Your task to perform on an android device: Clear the shopping cart on amazon.com. Add macbook pro to the cart on amazon.com Image 0: 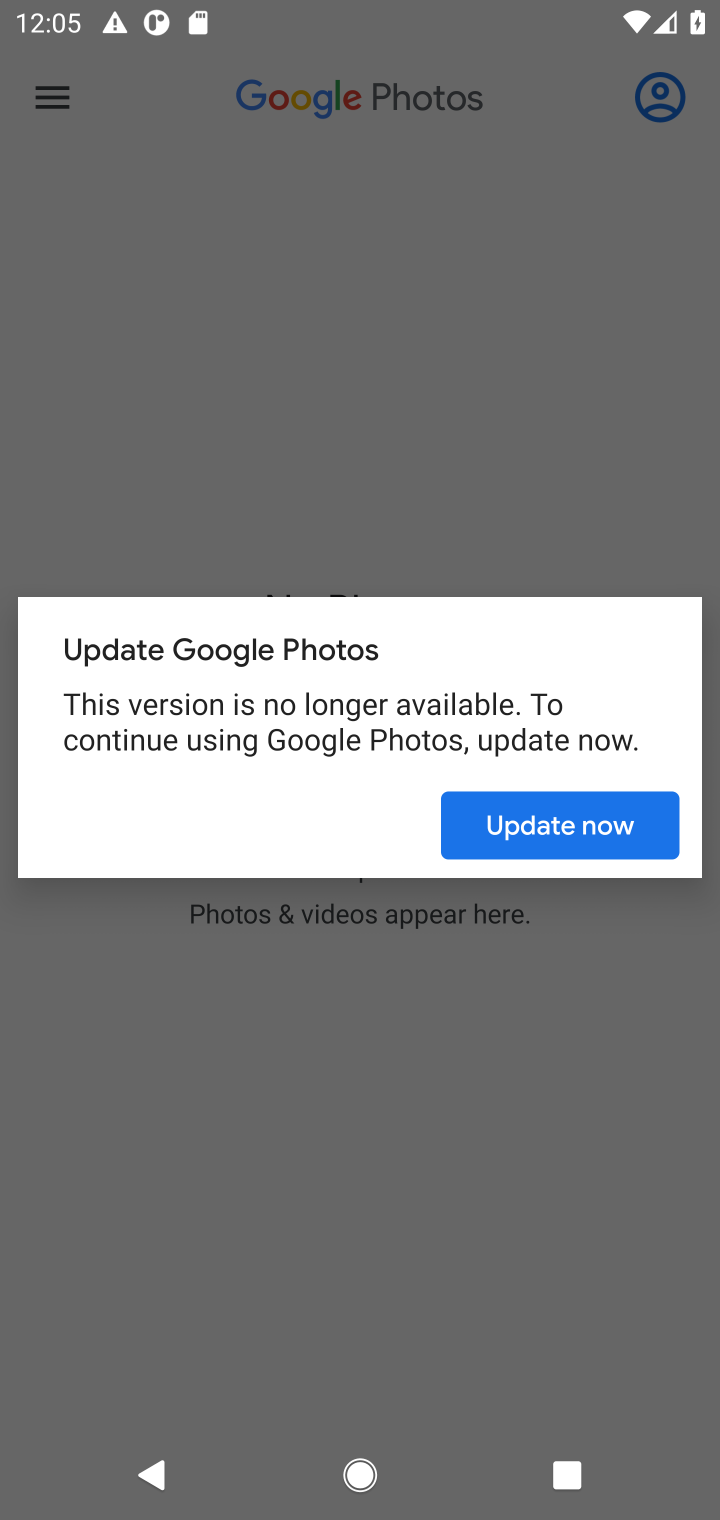
Step 0: press home button
Your task to perform on an android device: Clear the shopping cart on amazon.com. Add macbook pro to the cart on amazon.com Image 1: 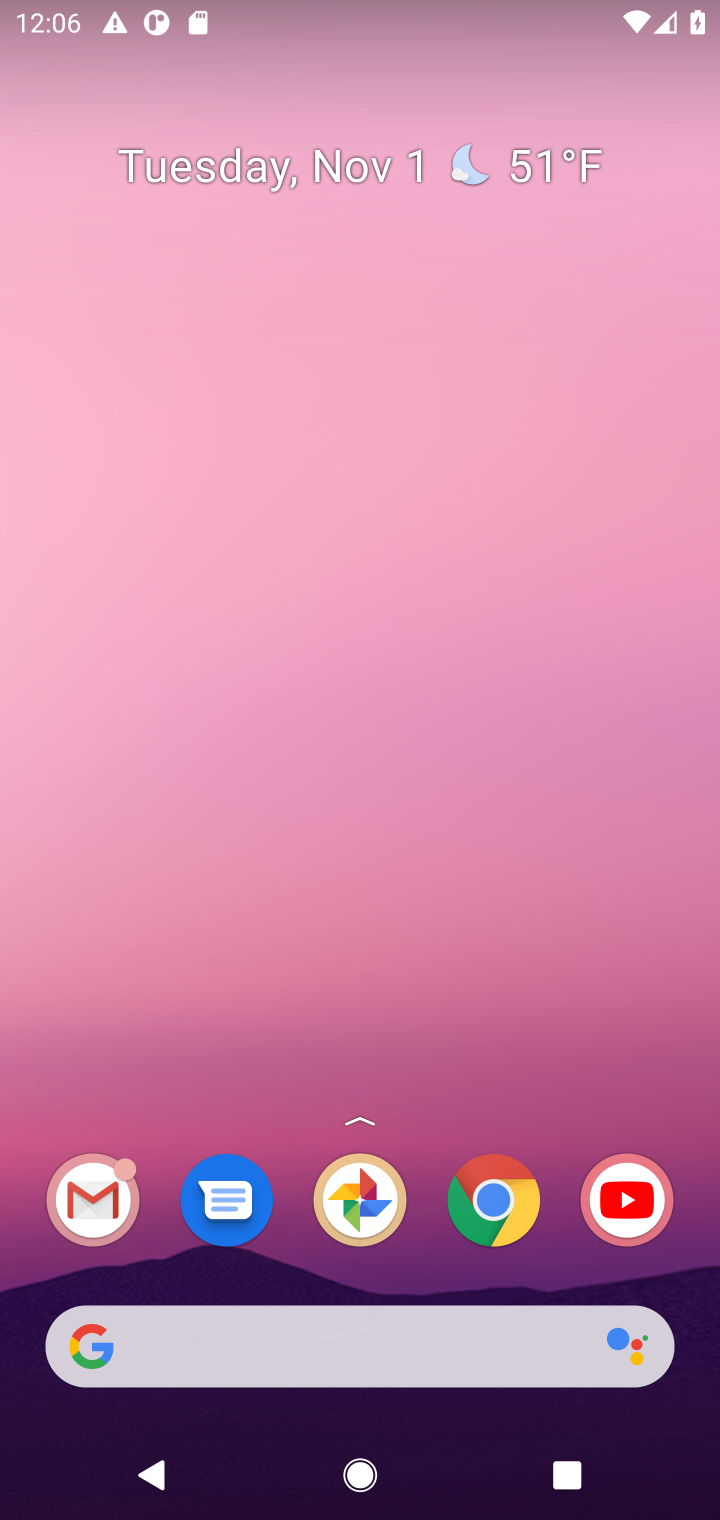
Step 1: click (498, 1220)
Your task to perform on an android device: Clear the shopping cart on amazon.com. Add macbook pro to the cart on amazon.com Image 2: 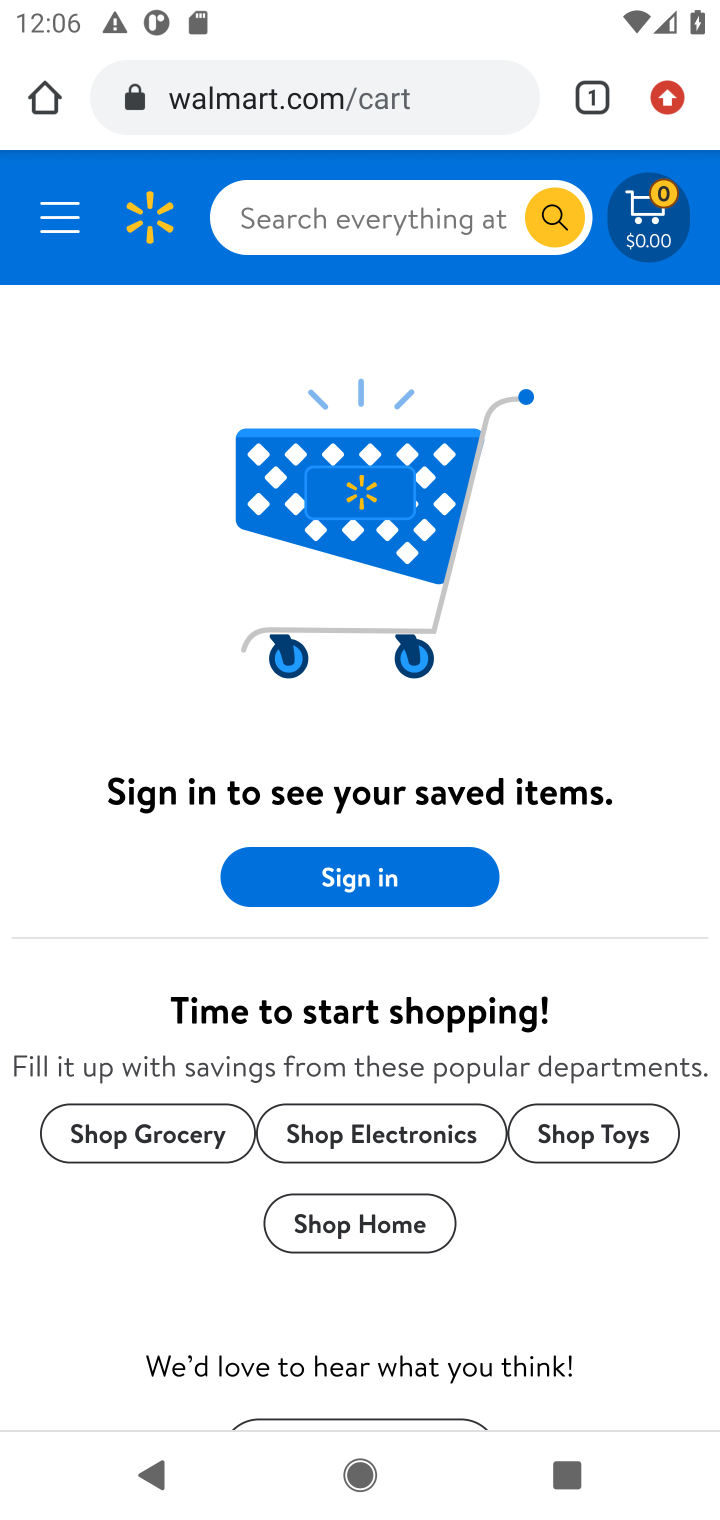
Step 2: click (319, 104)
Your task to perform on an android device: Clear the shopping cart on amazon.com. Add macbook pro to the cart on amazon.com Image 3: 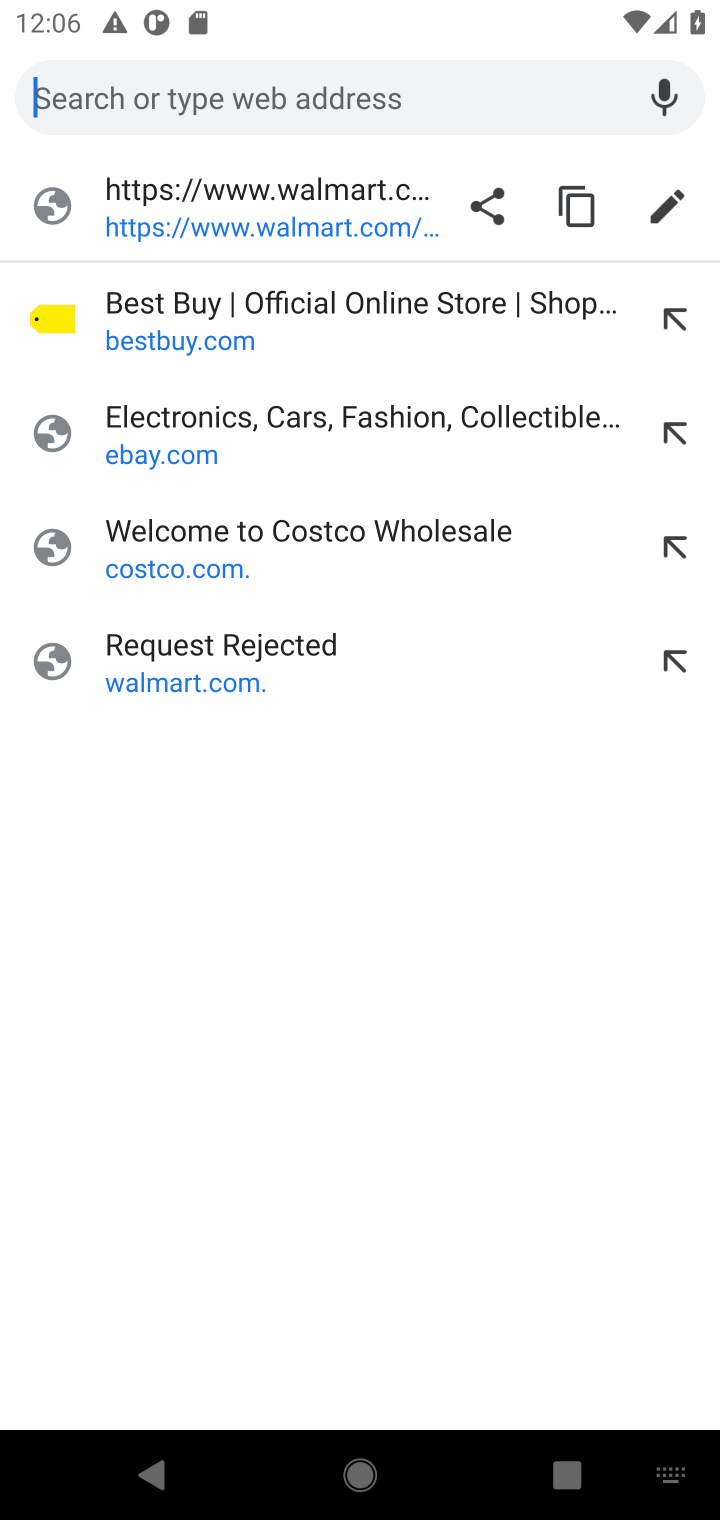
Step 3: type "amazon.com"
Your task to perform on an android device: Clear the shopping cart on amazon.com. Add macbook pro to the cart on amazon.com Image 4: 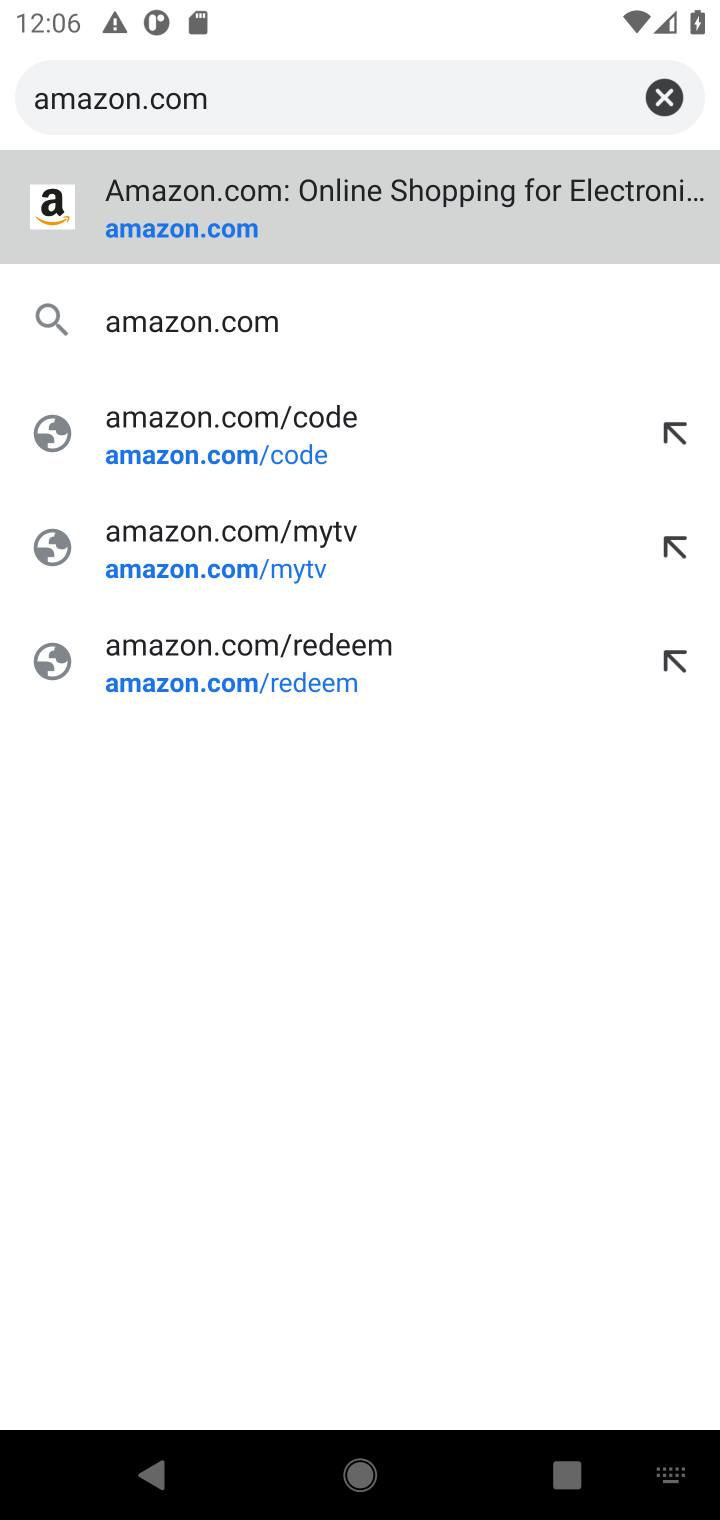
Step 4: click (181, 221)
Your task to perform on an android device: Clear the shopping cart on amazon.com. Add macbook pro to the cart on amazon.com Image 5: 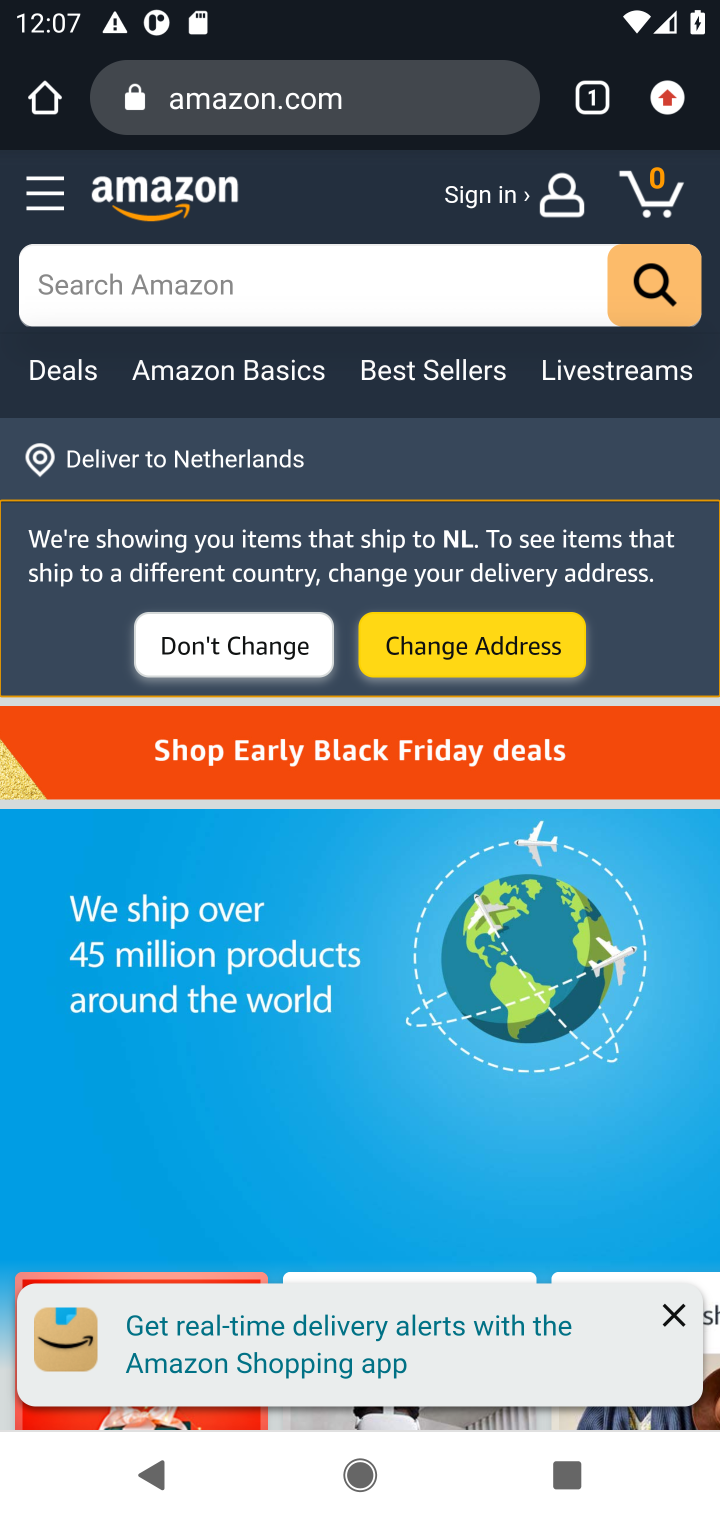
Step 5: click (307, 280)
Your task to perform on an android device: Clear the shopping cart on amazon.com. Add macbook pro to the cart on amazon.com Image 6: 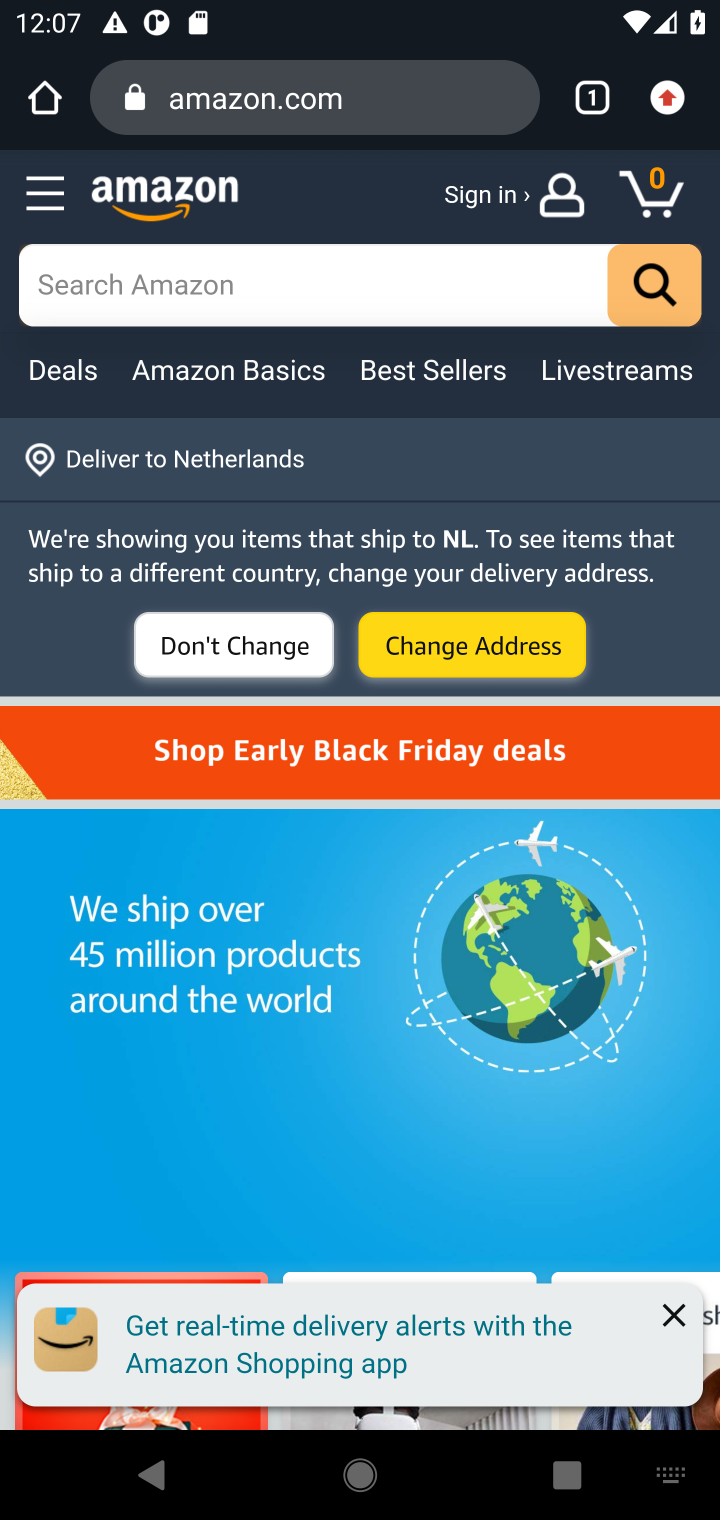
Step 6: type "macbook pro"
Your task to perform on an android device: Clear the shopping cart on amazon.com. Add macbook pro to the cart on amazon.com Image 7: 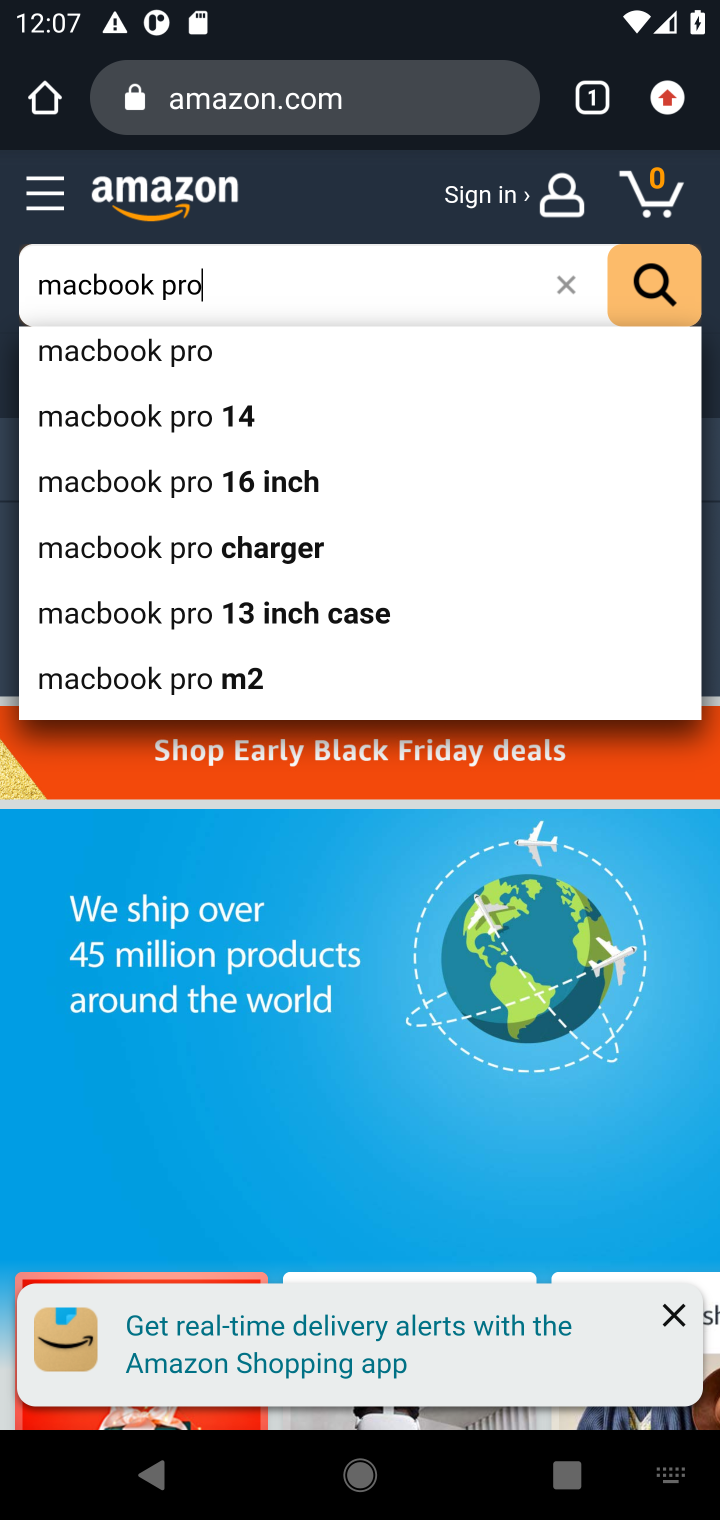
Step 7: click (129, 362)
Your task to perform on an android device: Clear the shopping cart on amazon.com. Add macbook pro to the cart on amazon.com Image 8: 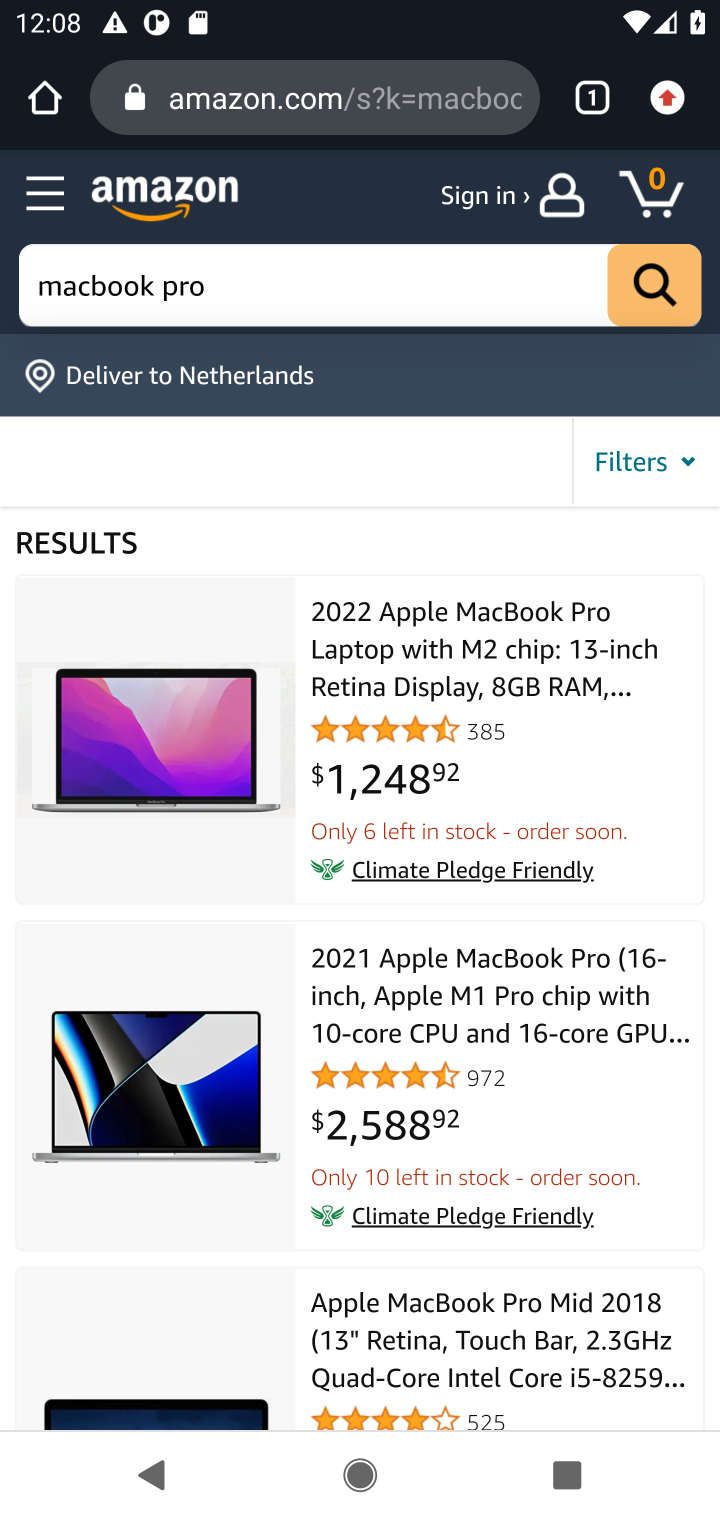
Step 8: click (412, 769)
Your task to perform on an android device: Clear the shopping cart on amazon.com. Add macbook pro to the cart on amazon.com Image 9: 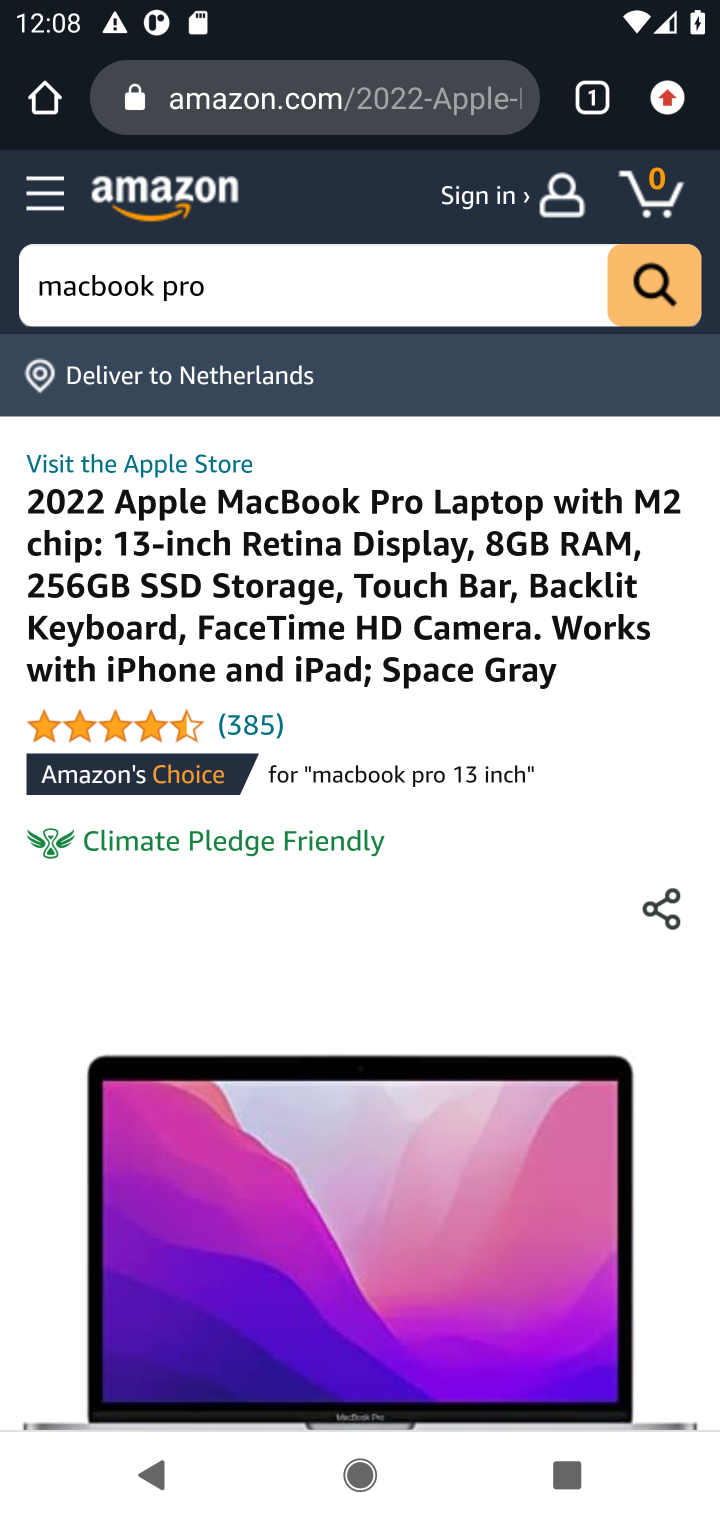
Step 9: drag from (370, 1139) to (427, 638)
Your task to perform on an android device: Clear the shopping cart on amazon.com. Add macbook pro to the cart on amazon.com Image 10: 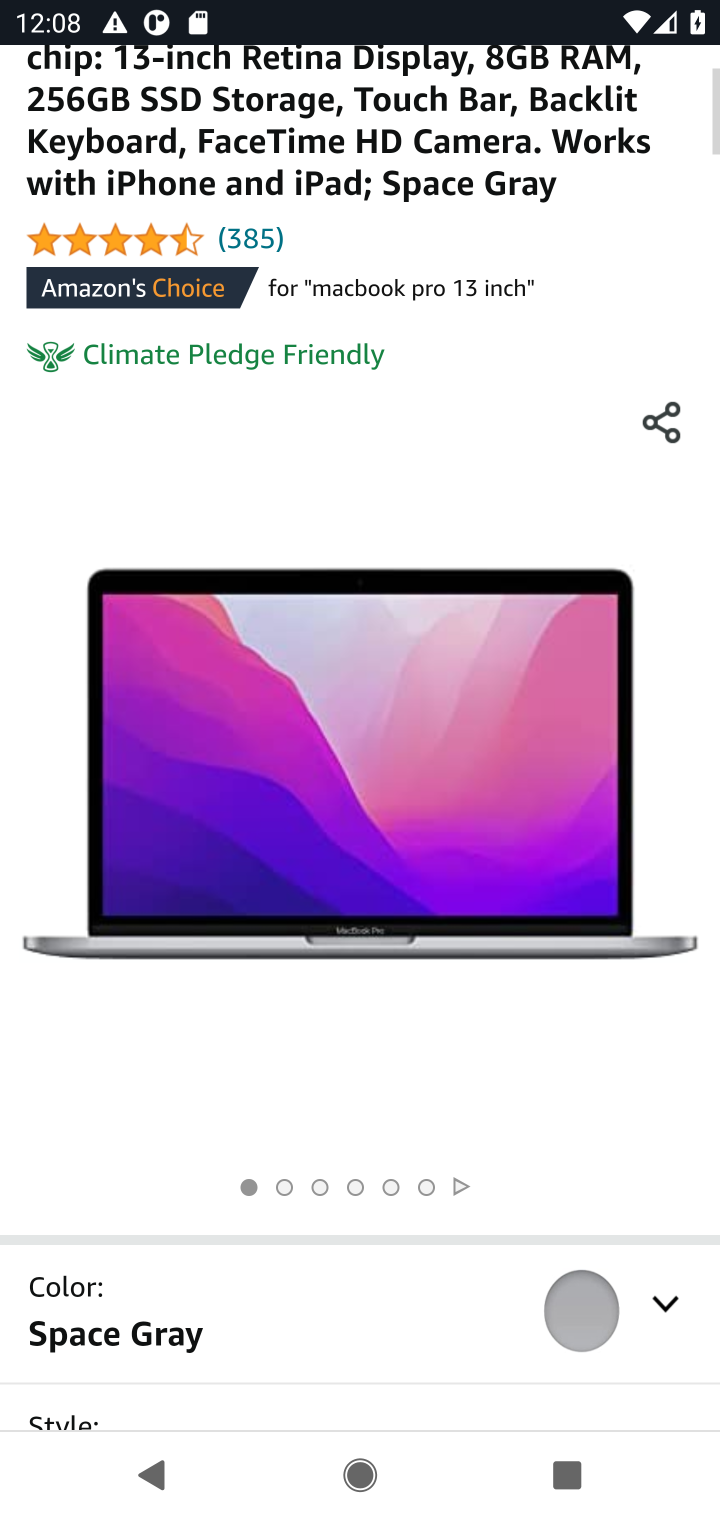
Step 10: drag from (390, 978) to (420, 488)
Your task to perform on an android device: Clear the shopping cart on amazon.com. Add macbook pro to the cart on amazon.com Image 11: 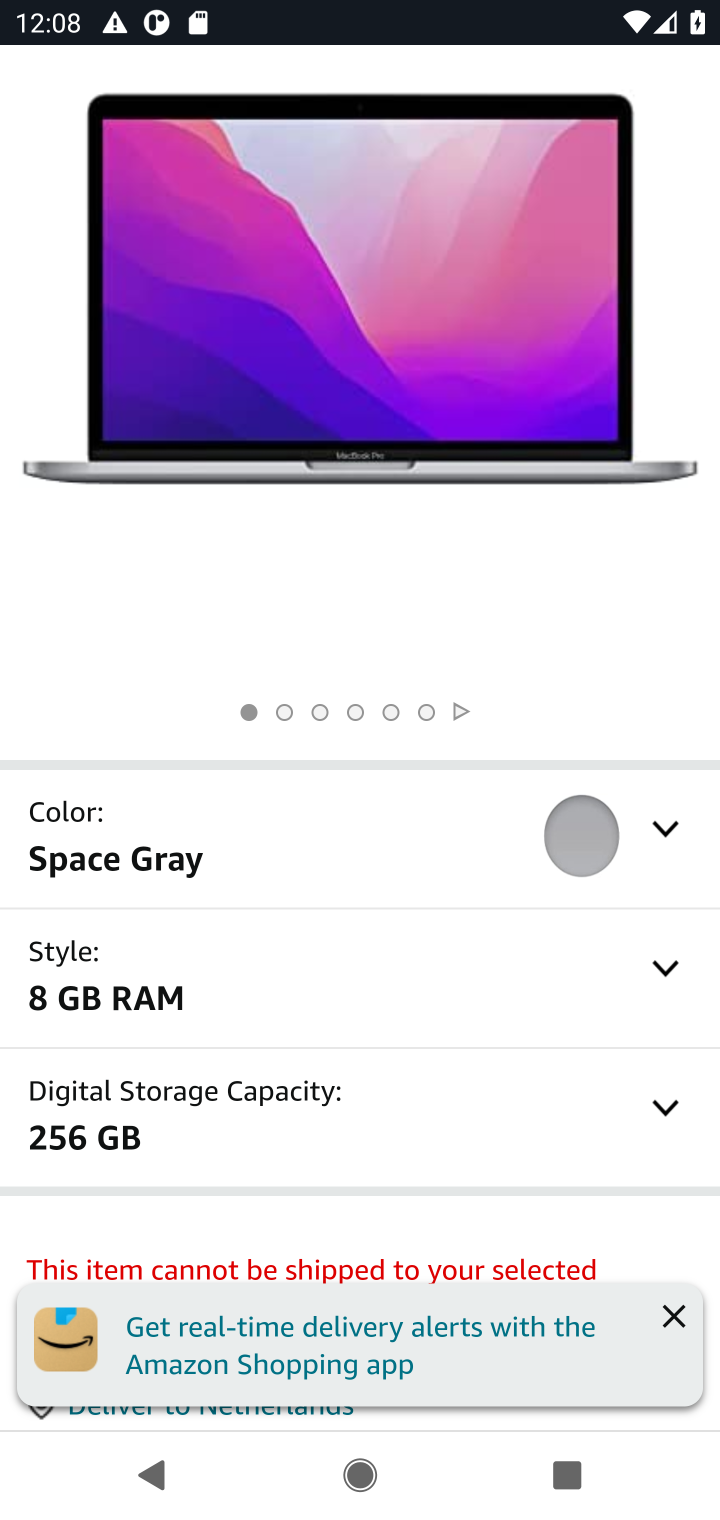
Step 11: drag from (471, 1148) to (449, 534)
Your task to perform on an android device: Clear the shopping cart on amazon.com. Add macbook pro to the cart on amazon.com Image 12: 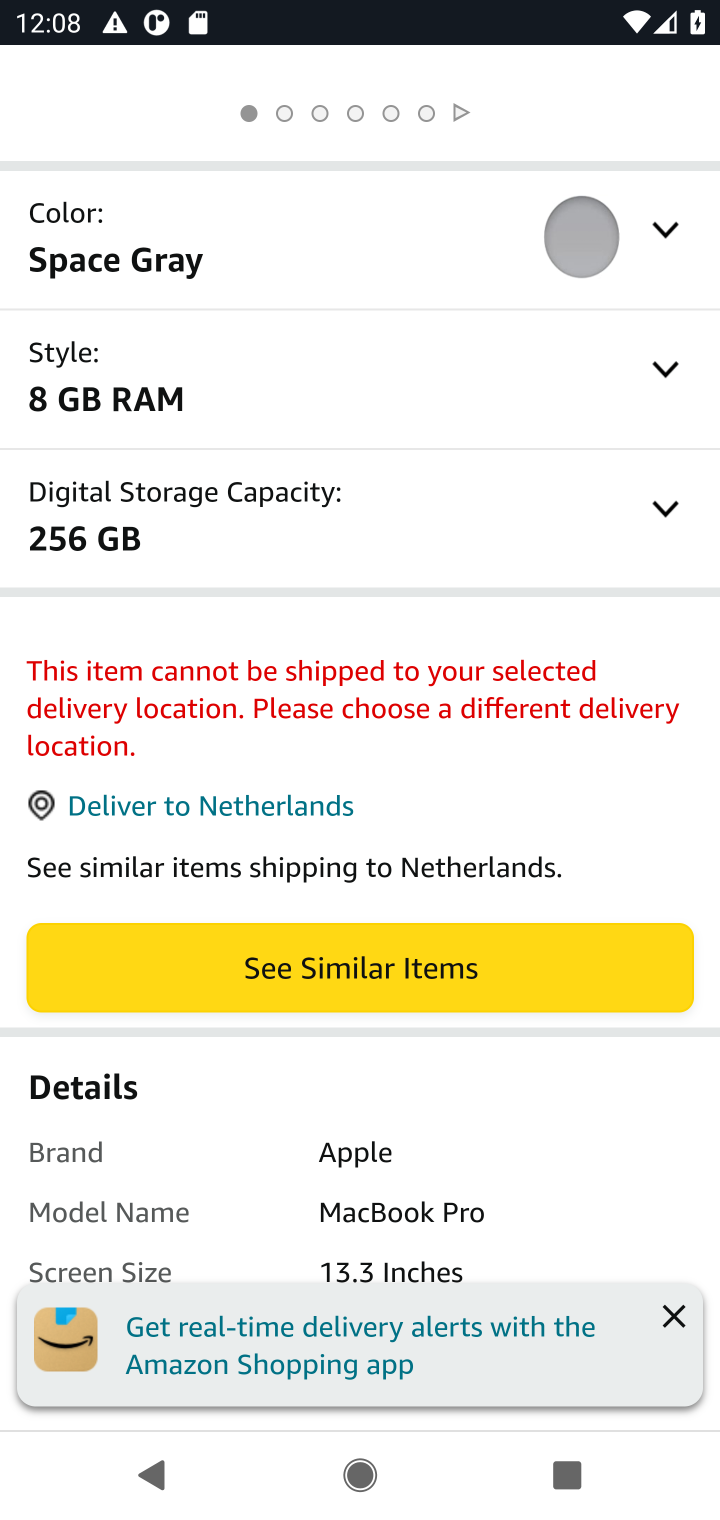
Step 12: drag from (332, 1029) to (376, 487)
Your task to perform on an android device: Clear the shopping cart on amazon.com. Add macbook pro to the cart on amazon.com Image 13: 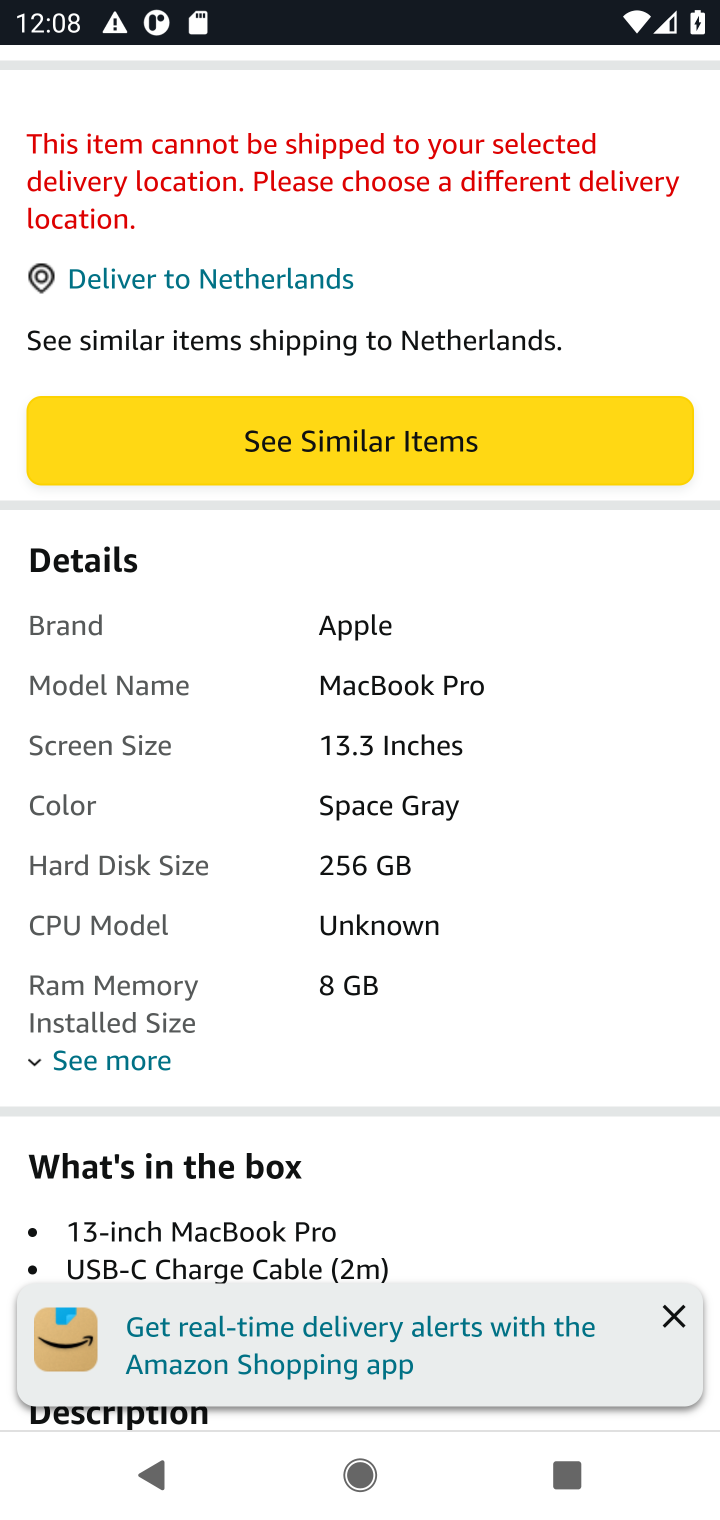
Step 13: drag from (381, 491) to (319, 1326)
Your task to perform on an android device: Clear the shopping cart on amazon.com. Add macbook pro to the cart on amazon.com Image 14: 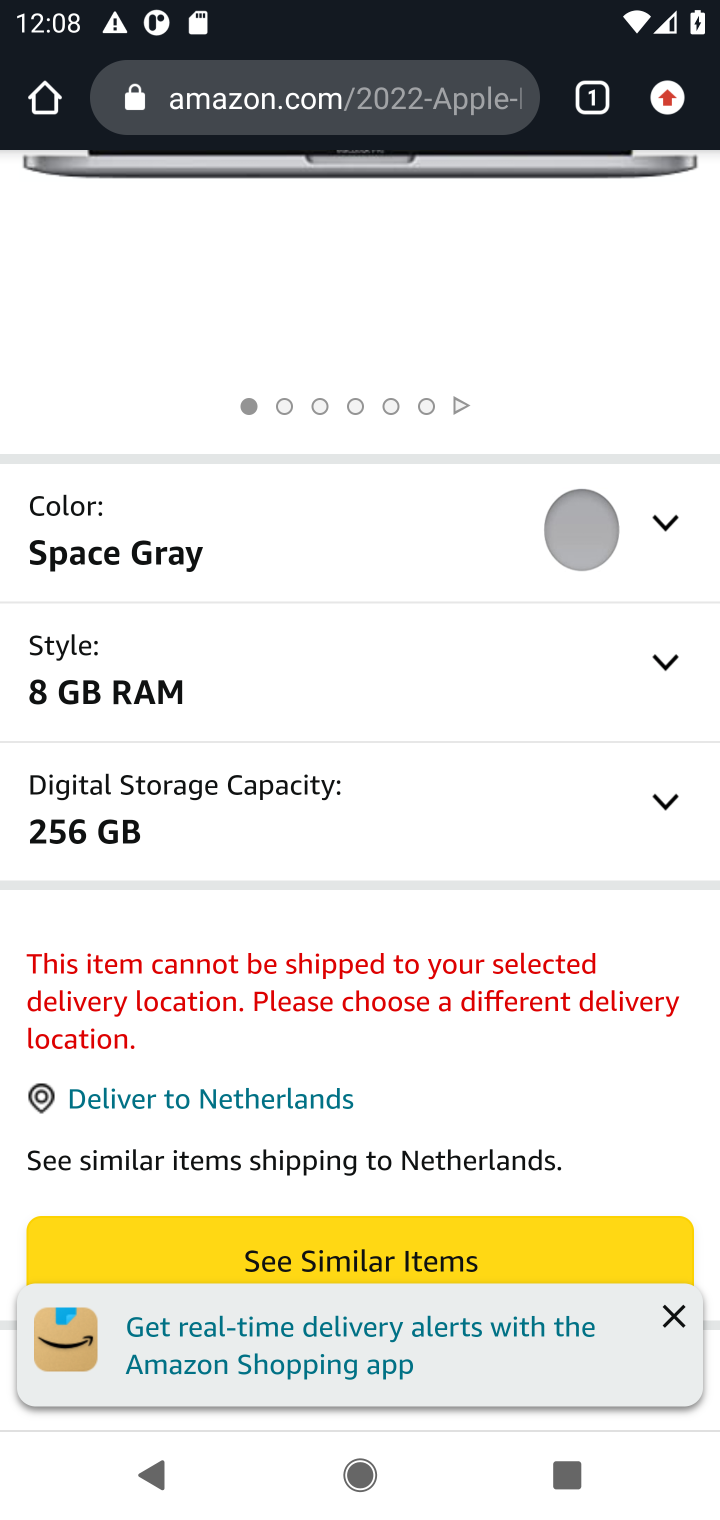
Step 14: drag from (272, 607) to (264, 1087)
Your task to perform on an android device: Clear the shopping cart on amazon.com. Add macbook pro to the cart on amazon.com Image 15: 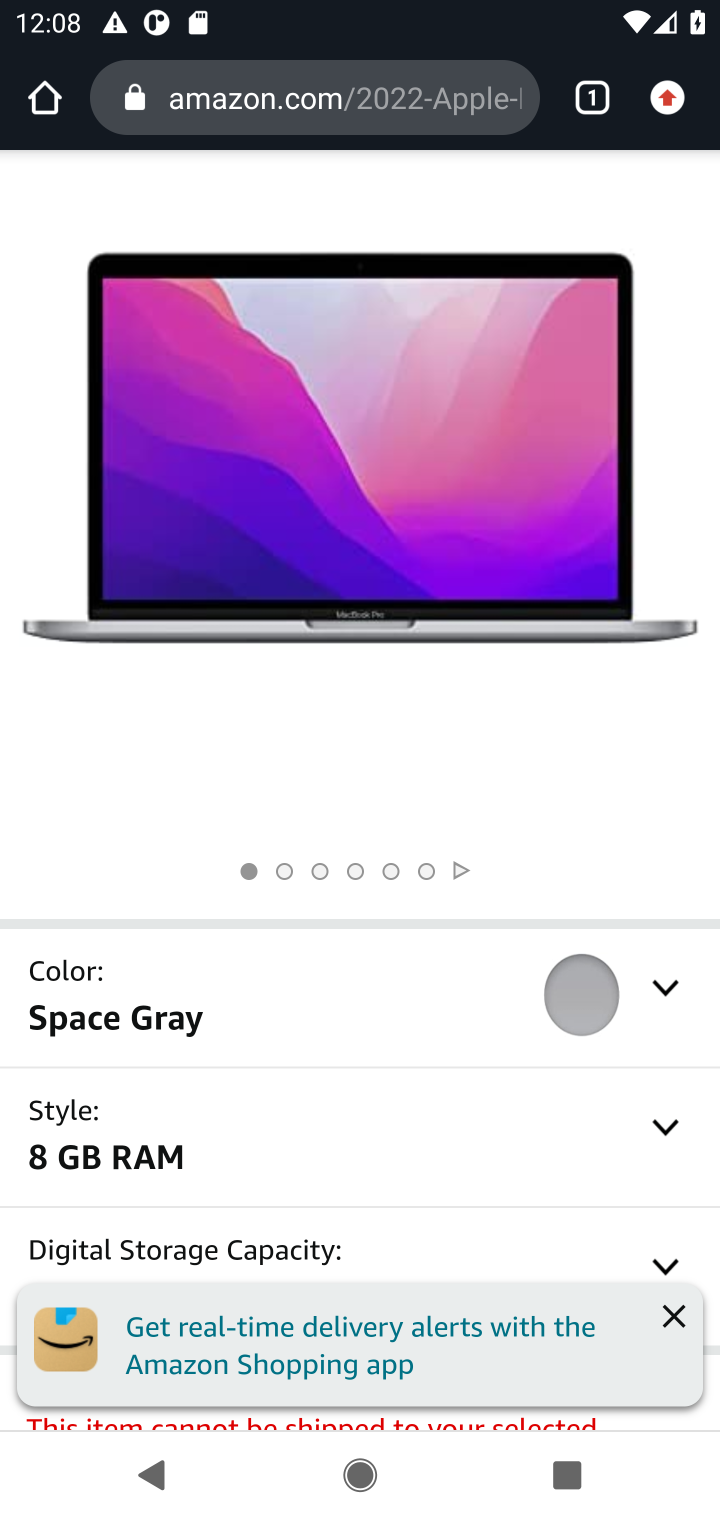
Step 15: drag from (302, 926) to (283, 1213)
Your task to perform on an android device: Clear the shopping cart on amazon.com. Add macbook pro to the cart on amazon.com Image 16: 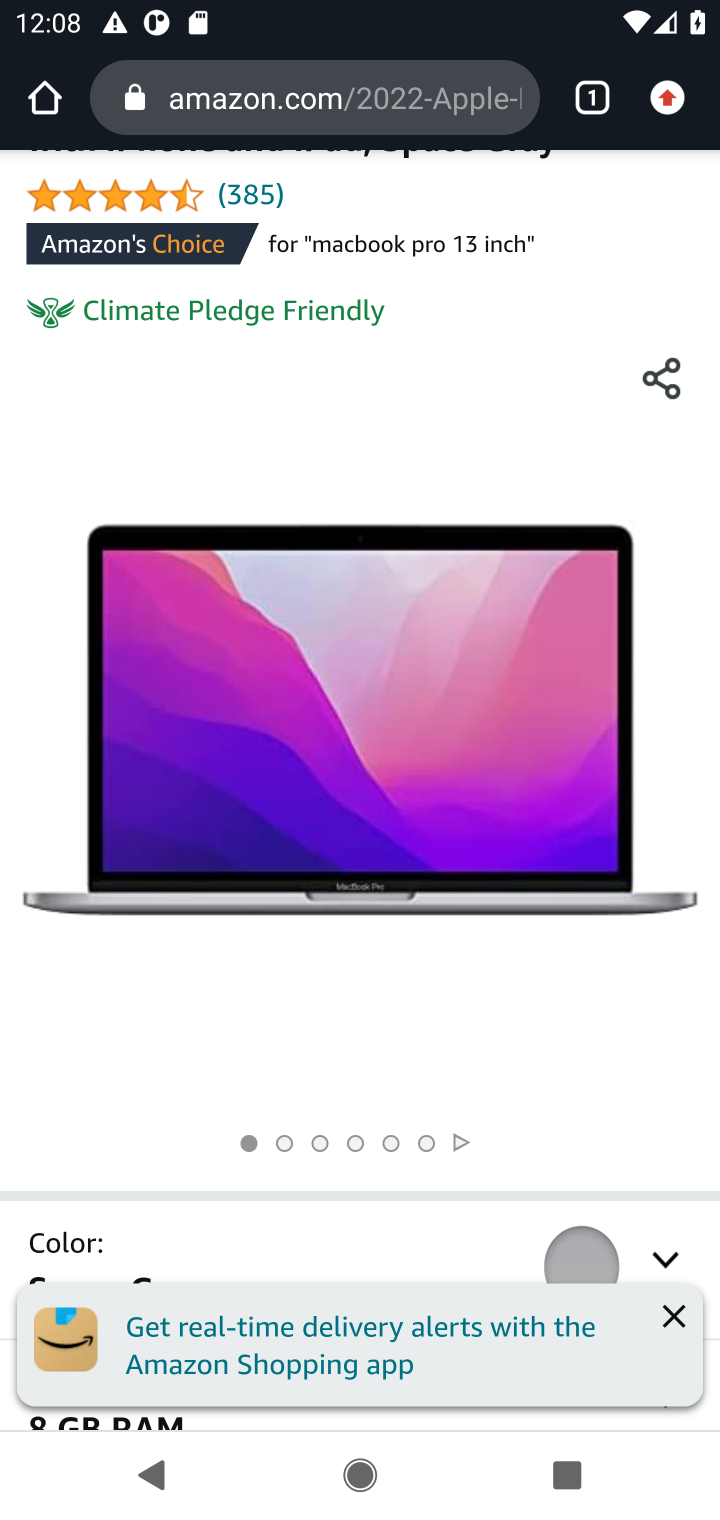
Step 16: press back button
Your task to perform on an android device: Clear the shopping cart on amazon.com. Add macbook pro to the cart on amazon.com Image 17: 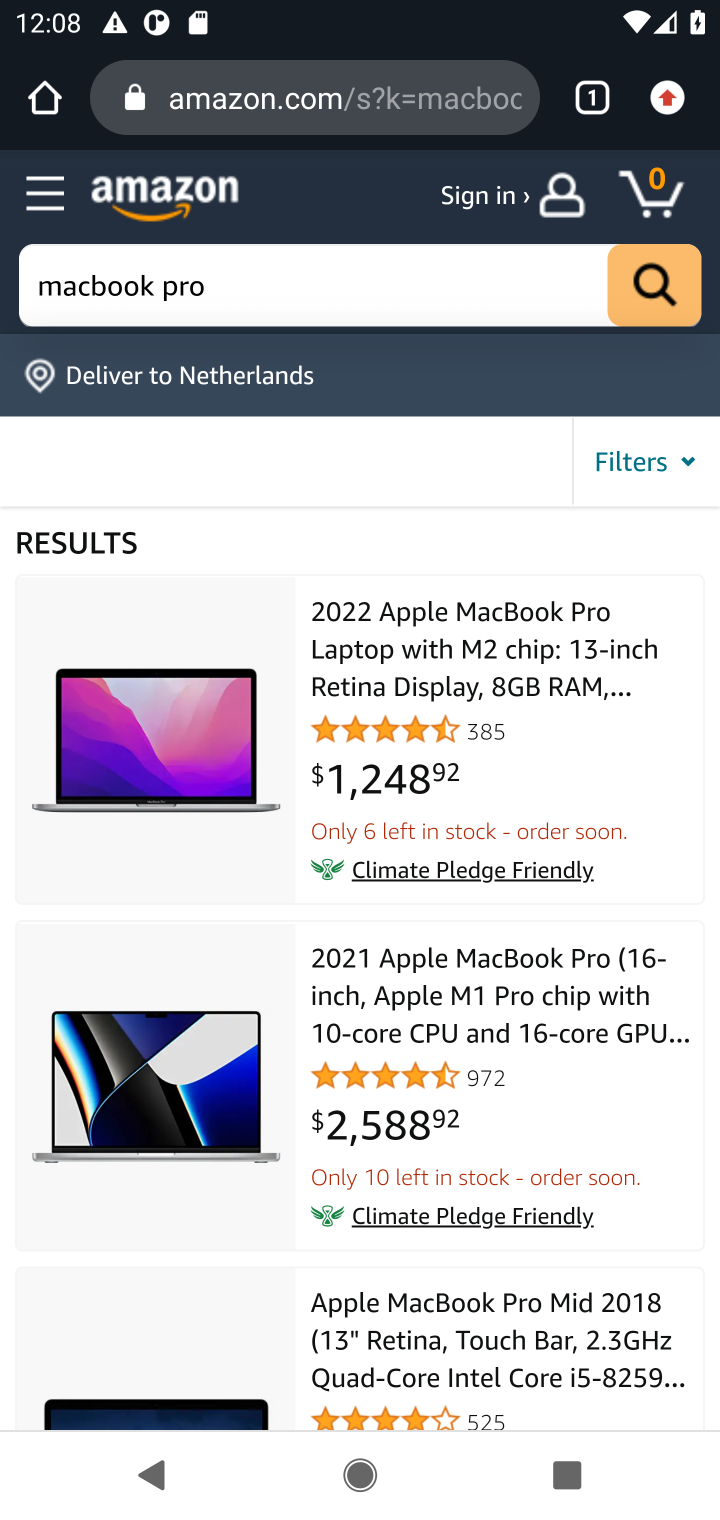
Step 17: click (429, 1055)
Your task to perform on an android device: Clear the shopping cart on amazon.com. Add macbook pro to the cart on amazon.com Image 18: 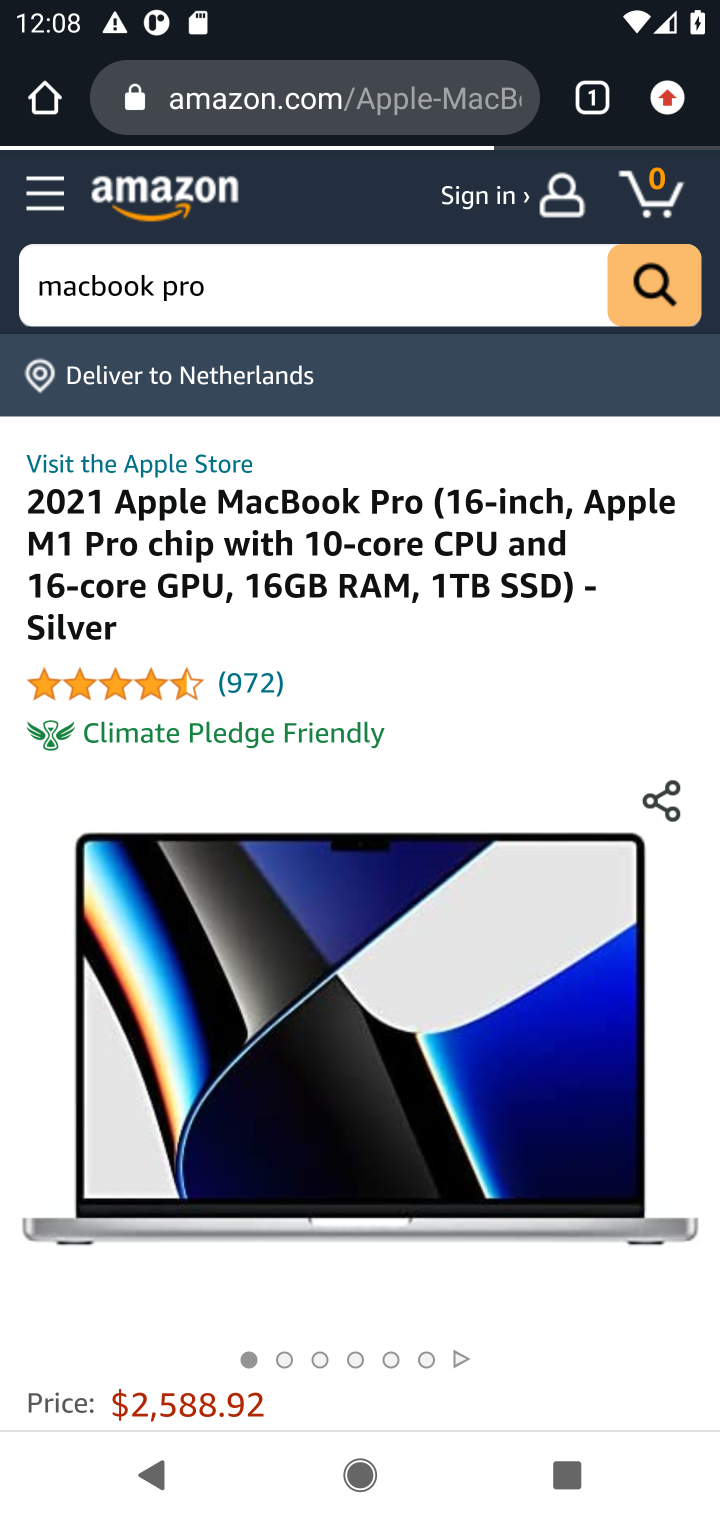
Step 18: drag from (289, 1071) to (279, 357)
Your task to perform on an android device: Clear the shopping cart on amazon.com. Add macbook pro to the cart on amazon.com Image 19: 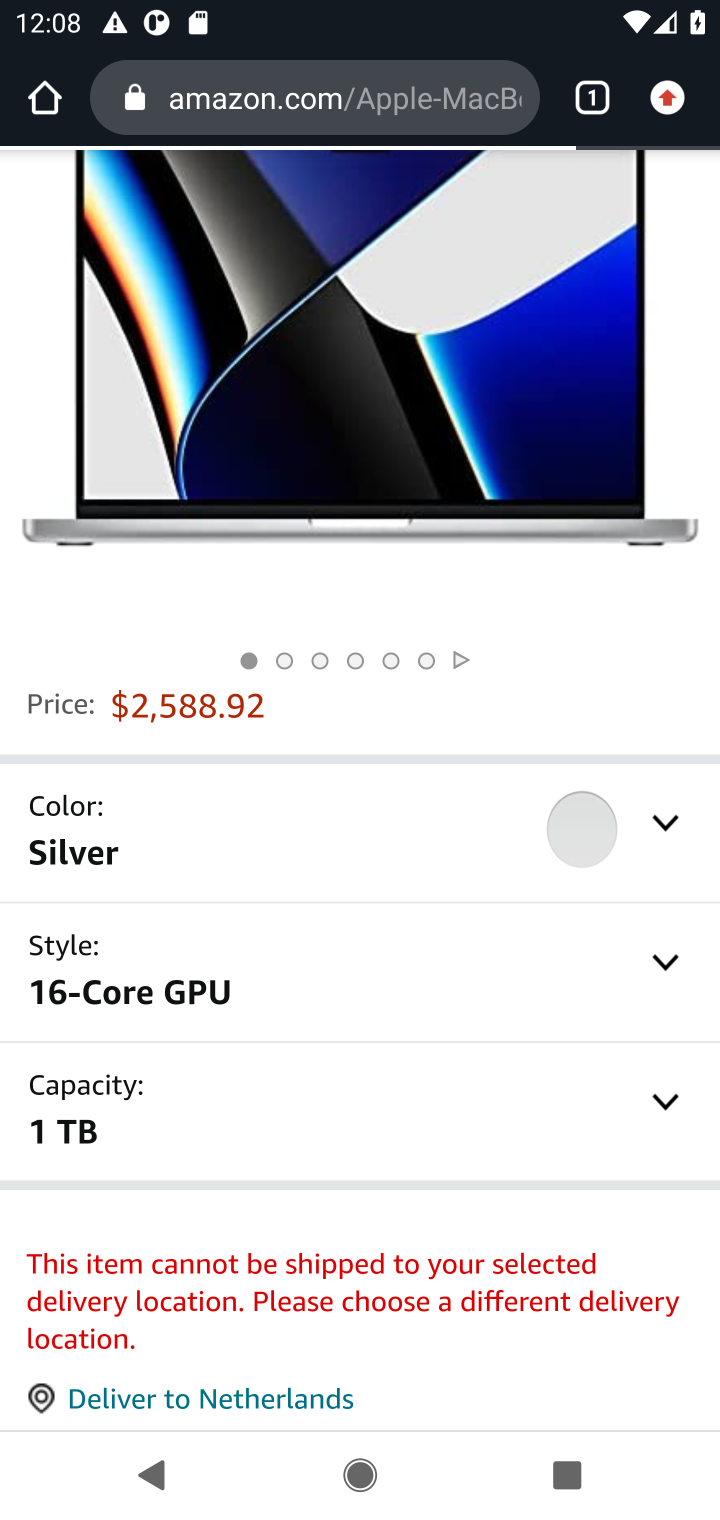
Step 19: drag from (269, 796) to (283, 545)
Your task to perform on an android device: Clear the shopping cart on amazon.com. Add macbook pro to the cart on amazon.com Image 20: 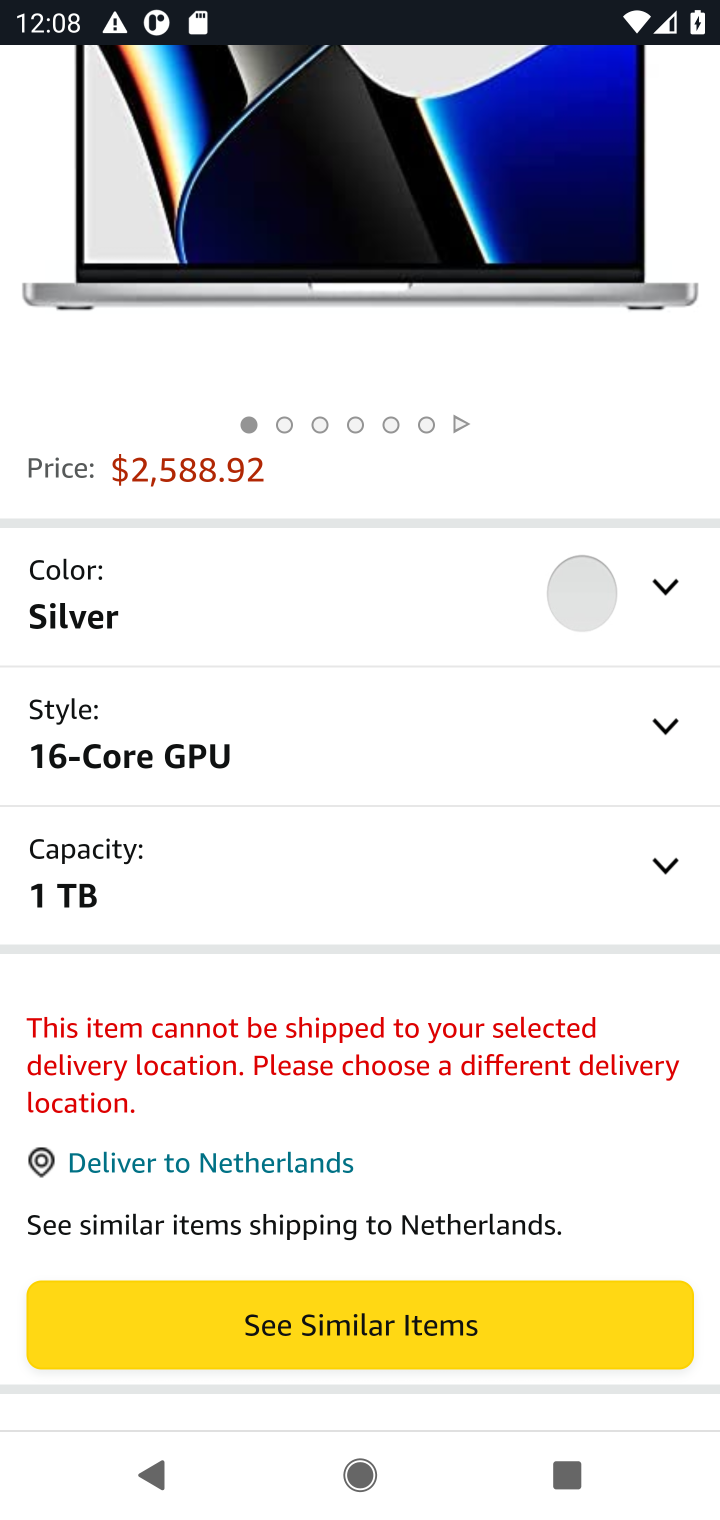
Step 20: press back button
Your task to perform on an android device: Clear the shopping cart on amazon.com. Add macbook pro to the cart on amazon.com Image 21: 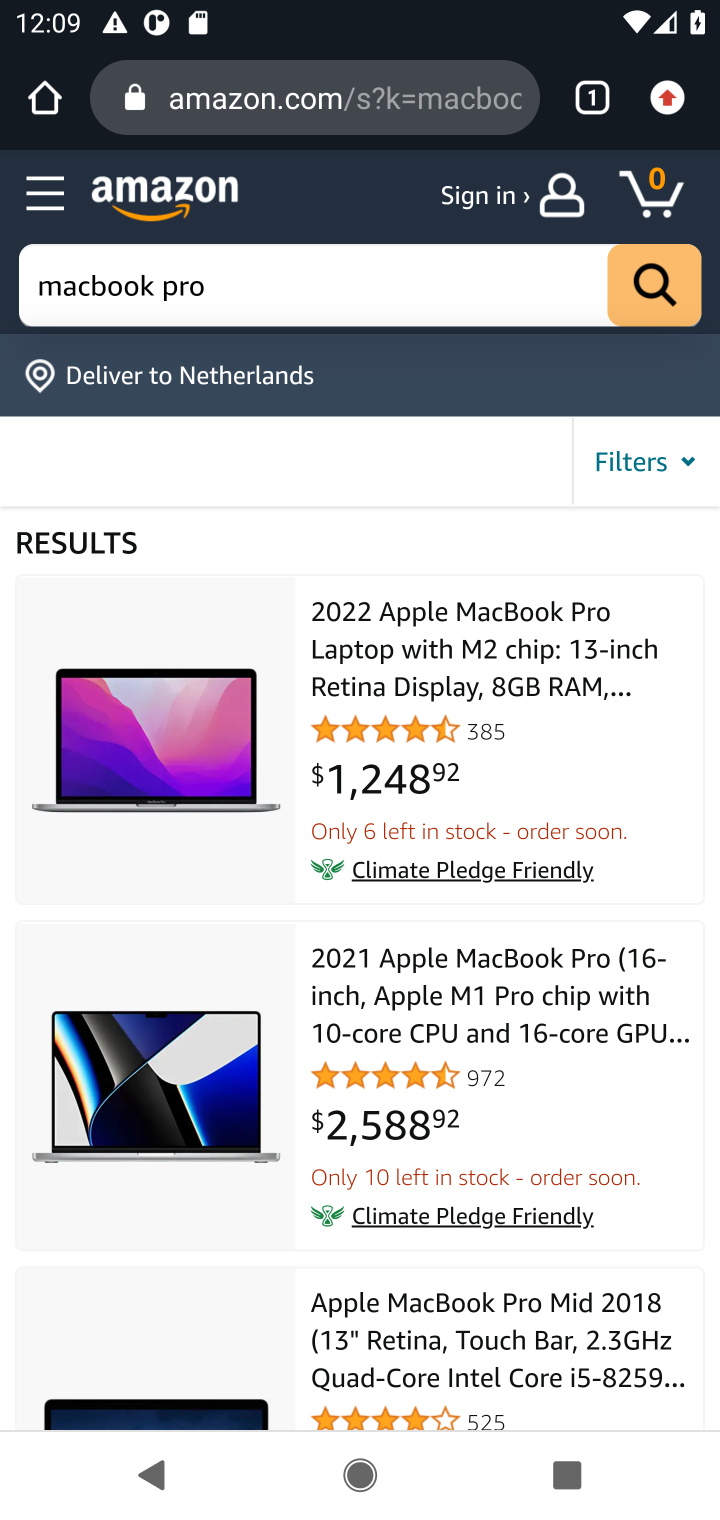
Step 21: drag from (379, 1267) to (427, 579)
Your task to perform on an android device: Clear the shopping cart on amazon.com. Add macbook pro to the cart on amazon.com Image 22: 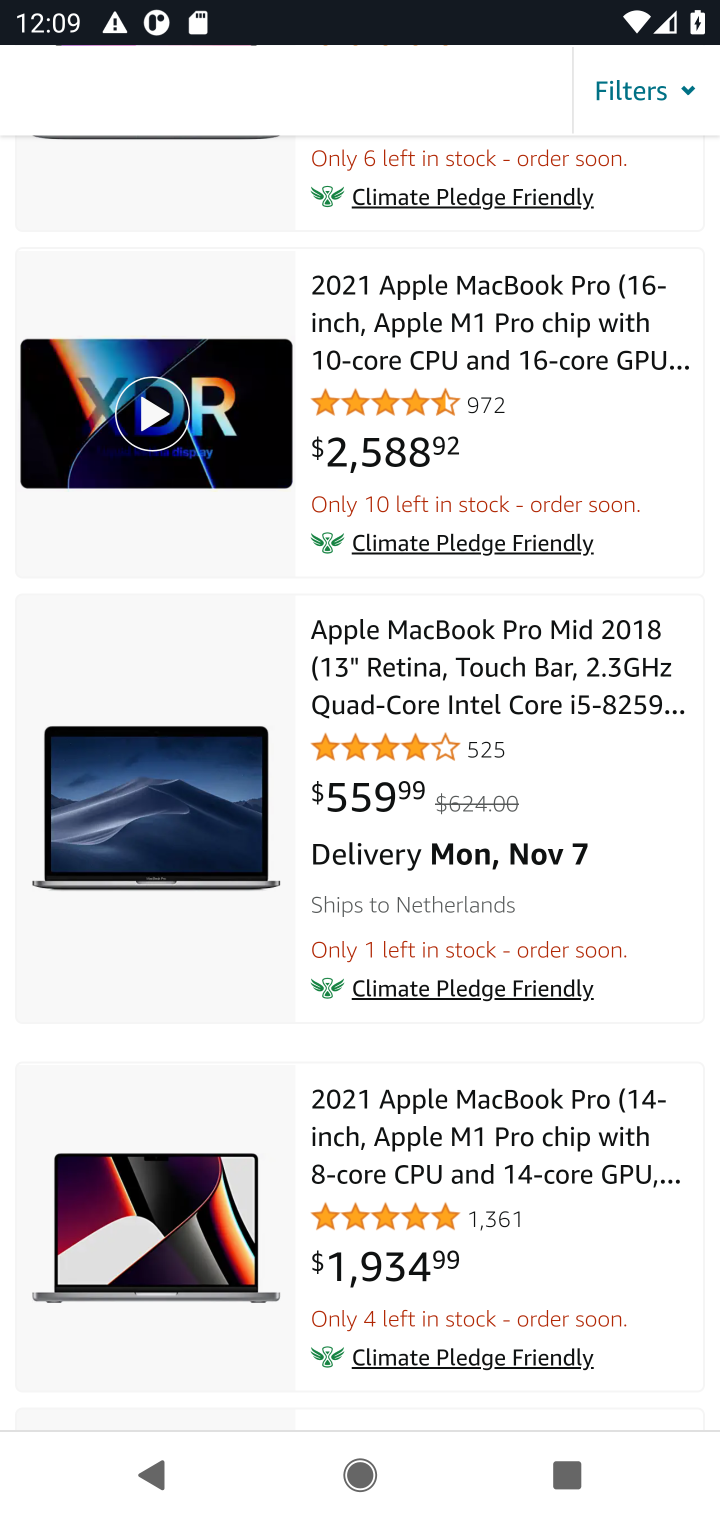
Step 22: click (227, 841)
Your task to perform on an android device: Clear the shopping cart on amazon.com. Add macbook pro to the cart on amazon.com Image 23: 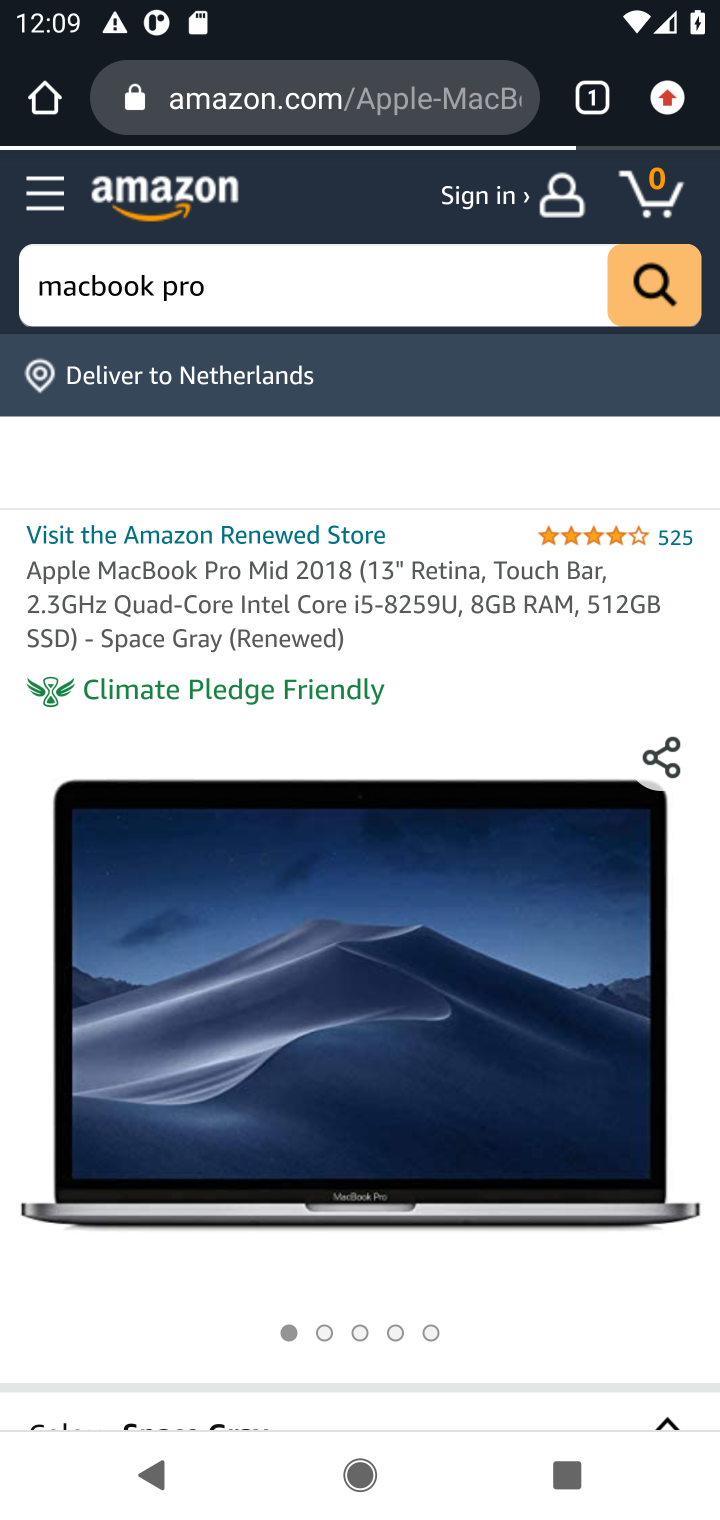
Step 23: drag from (276, 990) to (299, 421)
Your task to perform on an android device: Clear the shopping cart on amazon.com. Add macbook pro to the cart on amazon.com Image 24: 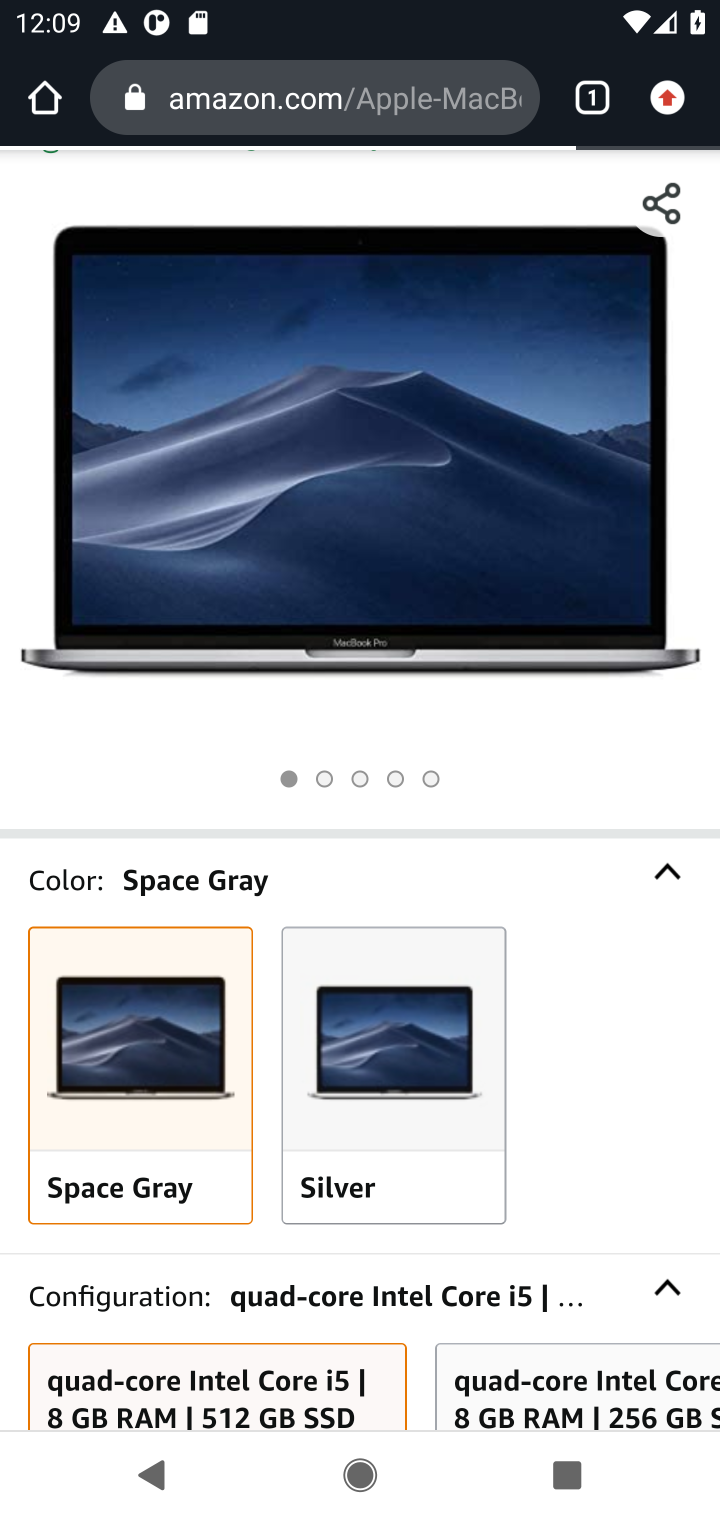
Step 24: drag from (402, 1184) to (407, 450)
Your task to perform on an android device: Clear the shopping cart on amazon.com. Add macbook pro to the cart on amazon.com Image 25: 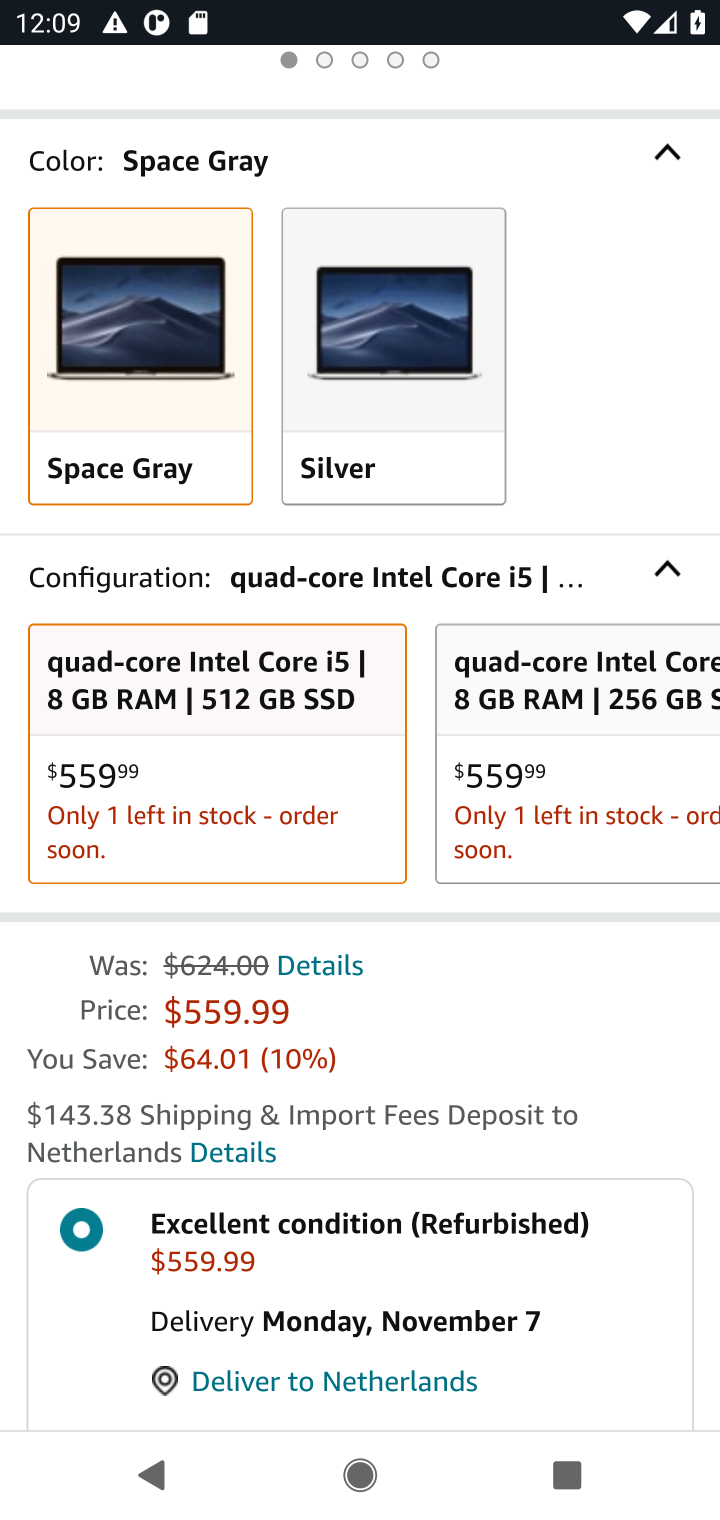
Step 25: drag from (433, 904) to (437, 385)
Your task to perform on an android device: Clear the shopping cart on amazon.com. Add macbook pro to the cart on amazon.com Image 26: 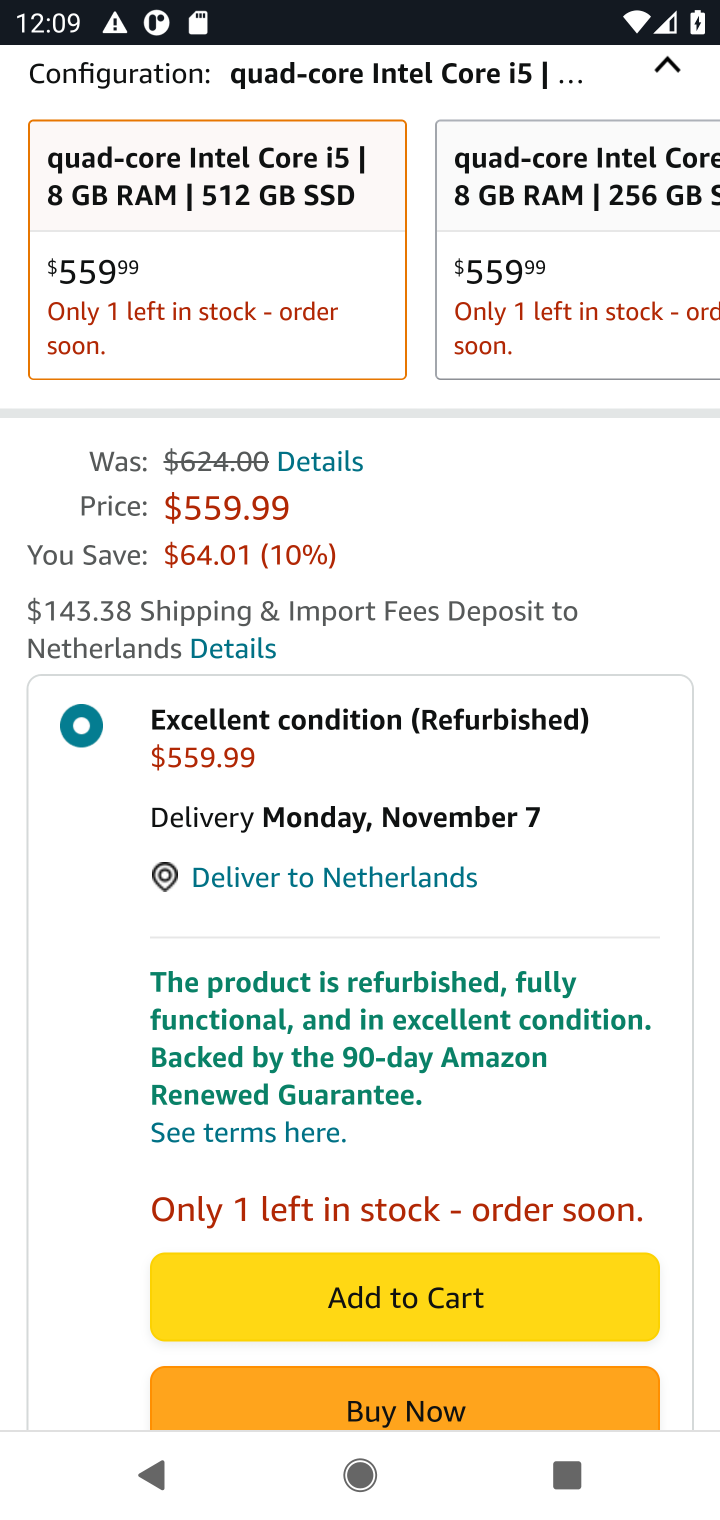
Step 26: drag from (363, 1103) to (410, 733)
Your task to perform on an android device: Clear the shopping cart on amazon.com. Add macbook pro to the cart on amazon.com Image 27: 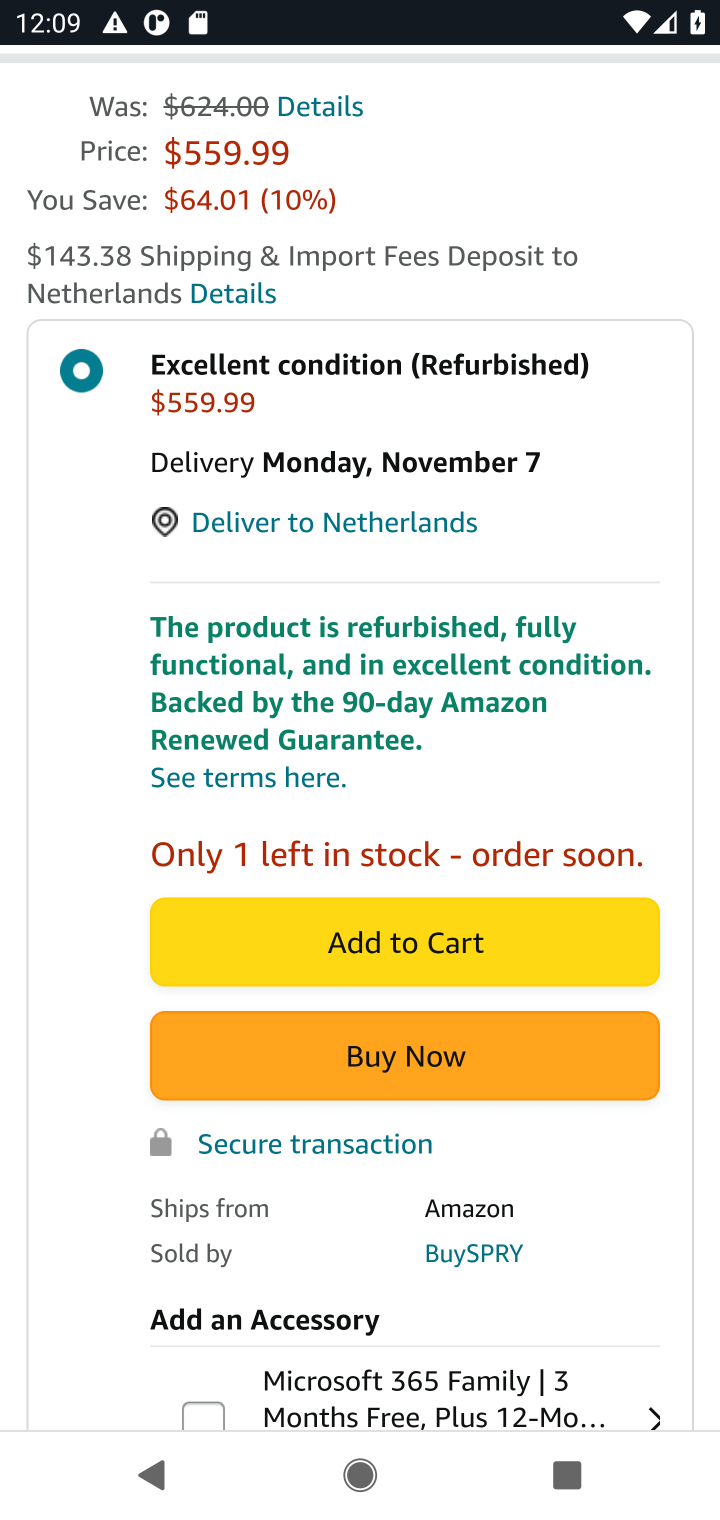
Step 27: click (390, 939)
Your task to perform on an android device: Clear the shopping cart on amazon.com. Add macbook pro to the cart on amazon.com Image 28: 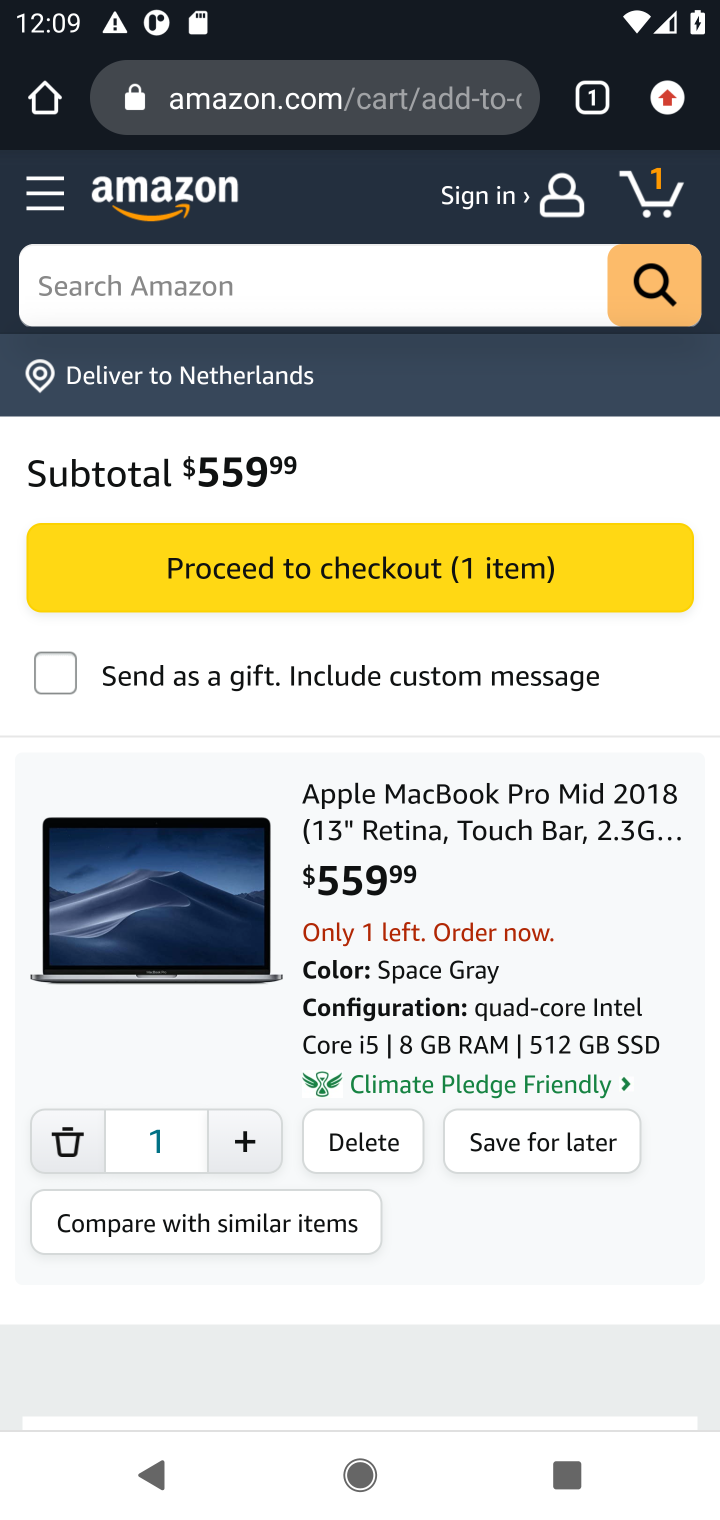
Step 28: task complete